Your task to perform on an android device: turn on showing notifications on the lock screen Image 0: 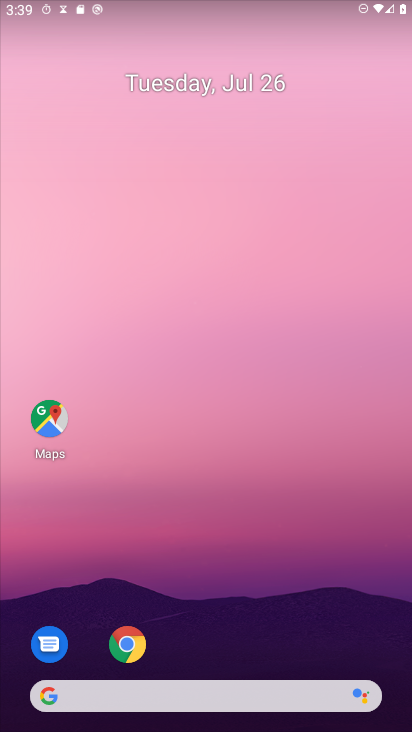
Step 0: press home button
Your task to perform on an android device: turn on showing notifications on the lock screen Image 1: 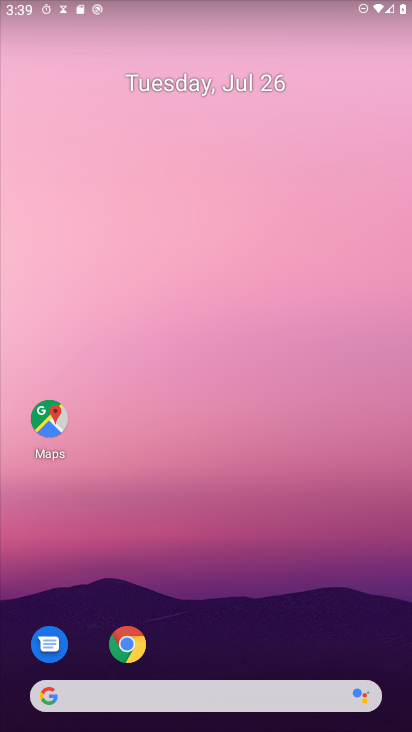
Step 1: drag from (255, 633) to (276, 91)
Your task to perform on an android device: turn on showing notifications on the lock screen Image 2: 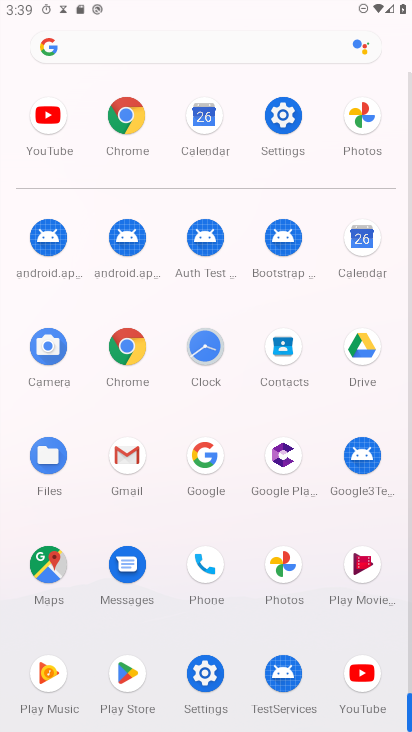
Step 2: click (284, 116)
Your task to perform on an android device: turn on showing notifications on the lock screen Image 3: 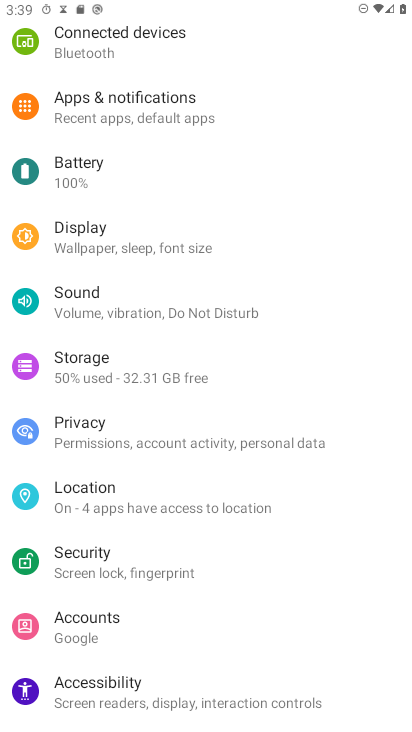
Step 3: click (131, 103)
Your task to perform on an android device: turn on showing notifications on the lock screen Image 4: 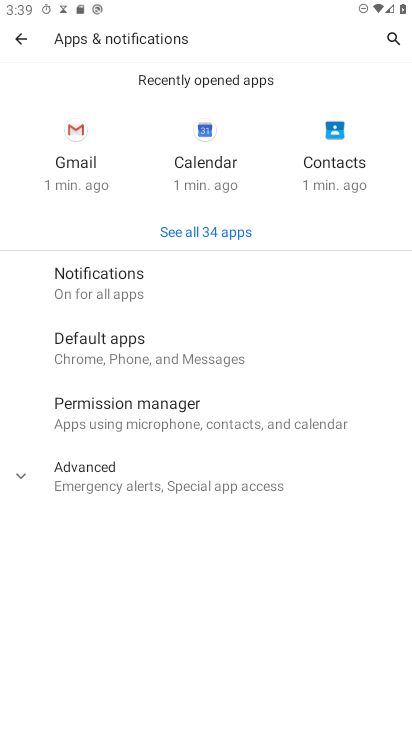
Step 4: click (114, 282)
Your task to perform on an android device: turn on showing notifications on the lock screen Image 5: 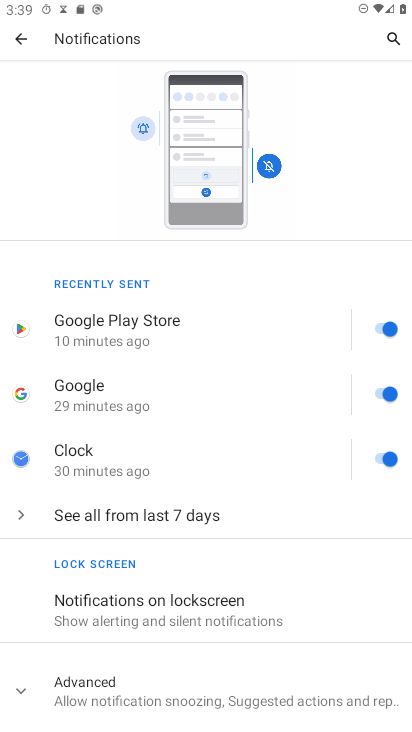
Step 5: click (222, 615)
Your task to perform on an android device: turn on showing notifications on the lock screen Image 6: 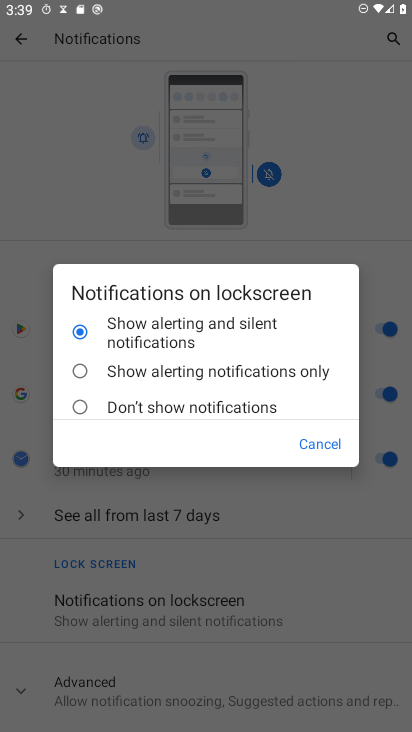
Step 6: task complete